Your task to perform on an android device: delete browsing data in the chrome app Image 0: 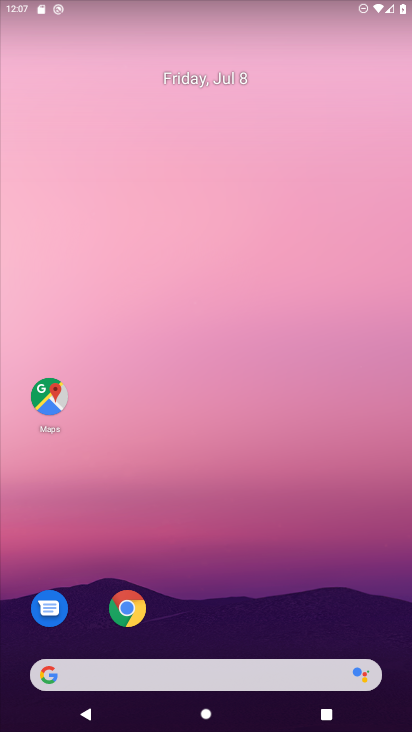
Step 0: click (129, 616)
Your task to perform on an android device: delete browsing data in the chrome app Image 1: 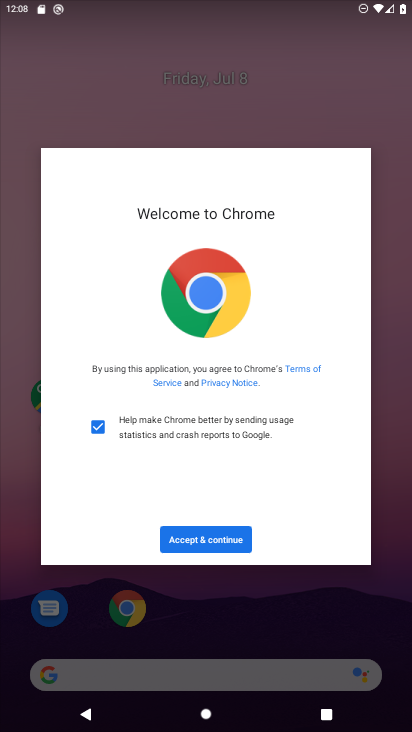
Step 1: click (190, 538)
Your task to perform on an android device: delete browsing data in the chrome app Image 2: 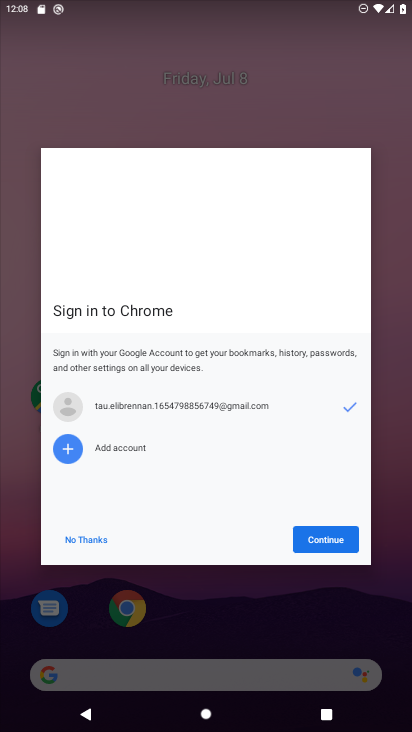
Step 2: click (338, 538)
Your task to perform on an android device: delete browsing data in the chrome app Image 3: 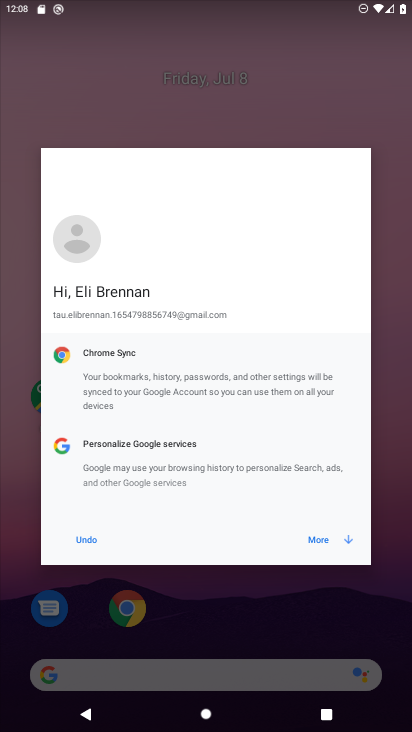
Step 3: click (320, 537)
Your task to perform on an android device: delete browsing data in the chrome app Image 4: 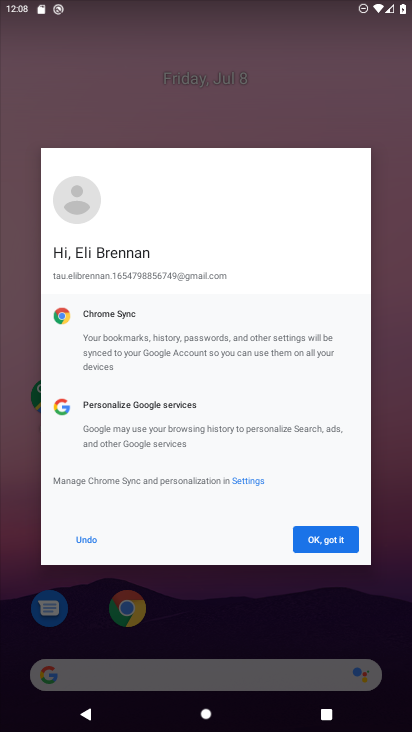
Step 4: click (320, 537)
Your task to perform on an android device: delete browsing data in the chrome app Image 5: 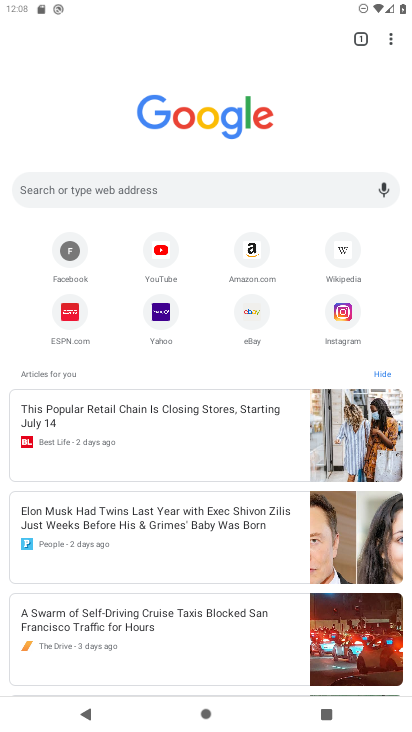
Step 5: click (390, 41)
Your task to perform on an android device: delete browsing data in the chrome app Image 6: 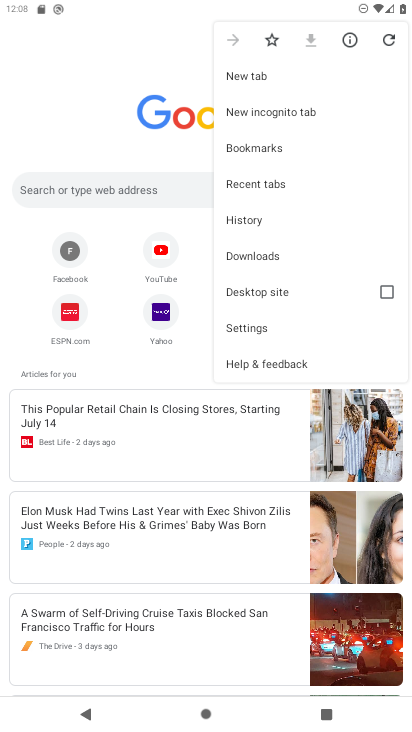
Step 6: click (238, 218)
Your task to perform on an android device: delete browsing data in the chrome app Image 7: 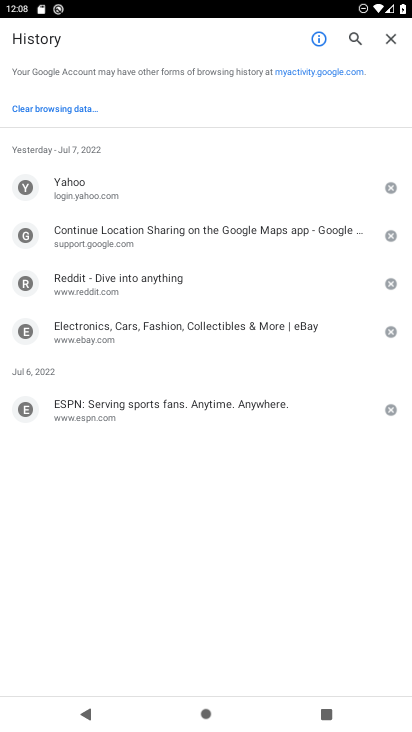
Step 7: click (64, 106)
Your task to perform on an android device: delete browsing data in the chrome app Image 8: 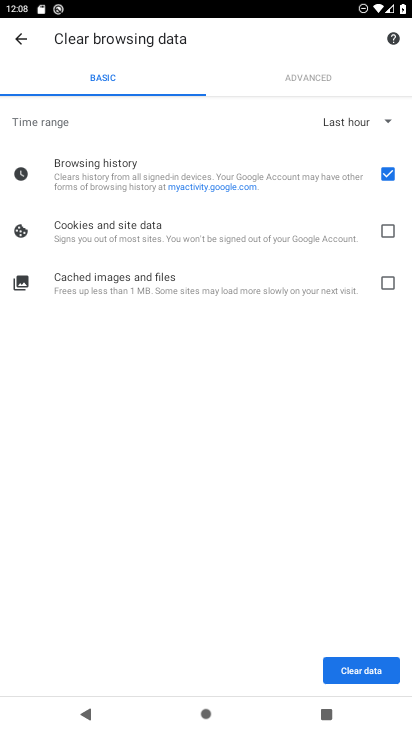
Step 8: click (362, 679)
Your task to perform on an android device: delete browsing data in the chrome app Image 9: 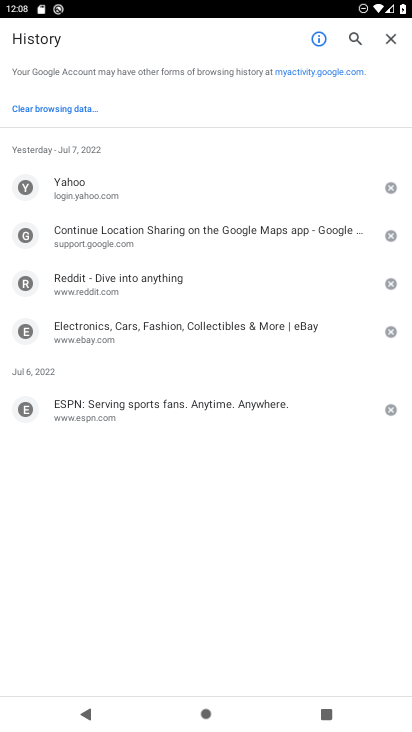
Step 9: task complete